Your task to perform on an android device: Show me popular games on the Play Store Image 0: 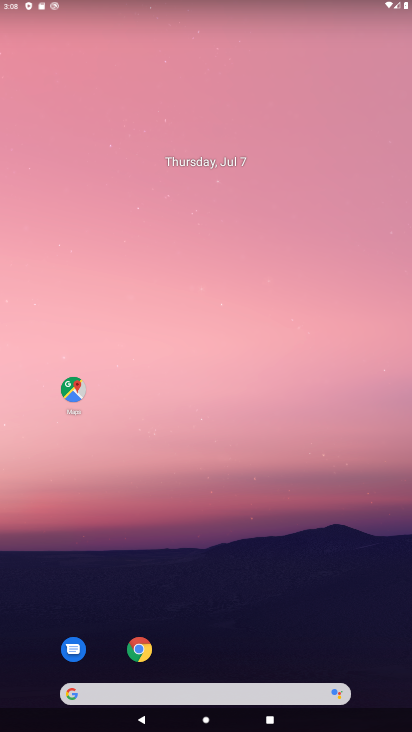
Step 0: drag from (224, 611) to (220, 87)
Your task to perform on an android device: Show me popular games on the Play Store Image 1: 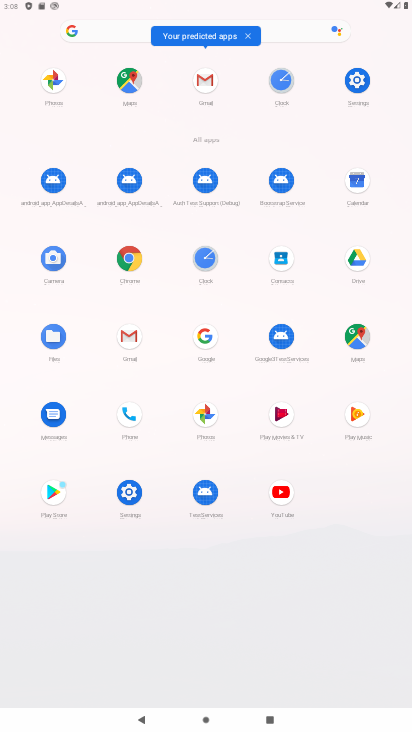
Step 1: click (43, 498)
Your task to perform on an android device: Show me popular games on the Play Store Image 2: 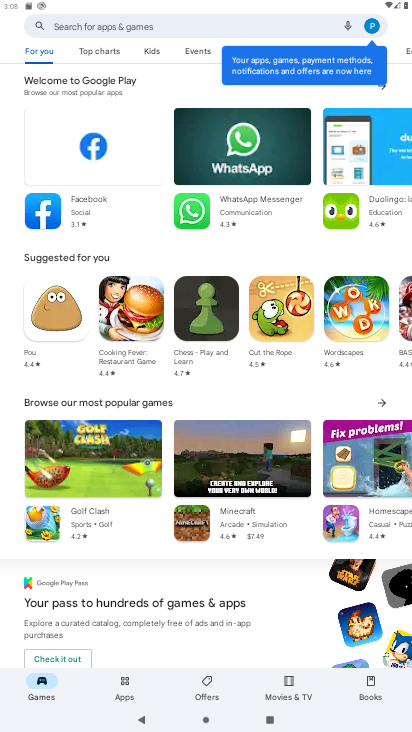
Step 2: drag from (153, 589) to (238, 96)
Your task to perform on an android device: Show me popular games on the Play Store Image 3: 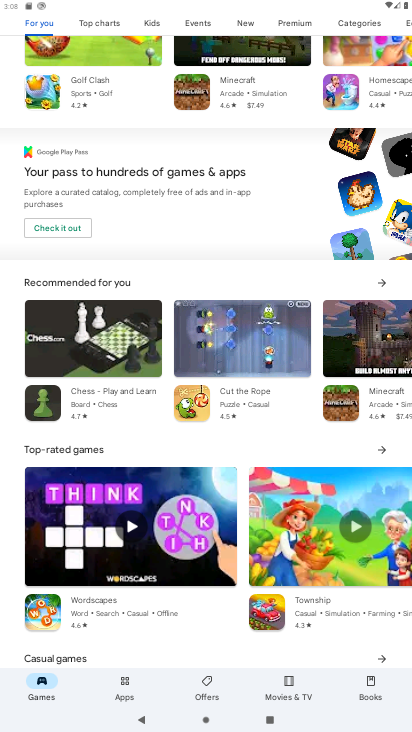
Step 3: drag from (179, 554) to (276, 66)
Your task to perform on an android device: Show me popular games on the Play Store Image 4: 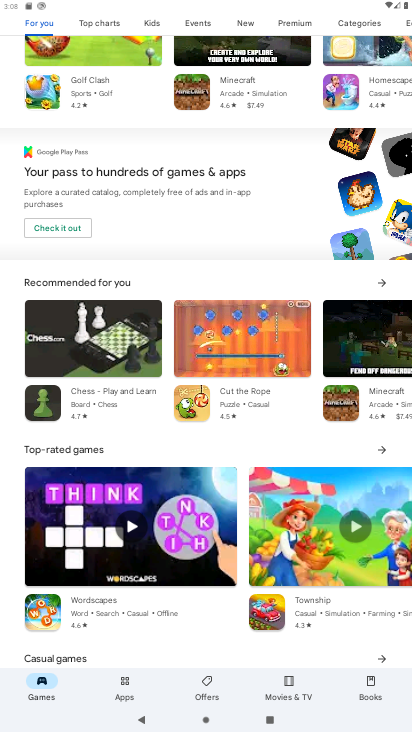
Step 4: drag from (162, 525) to (199, 141)
Your task to perform on an android device: Show me popular games on the Play Store Image 5: 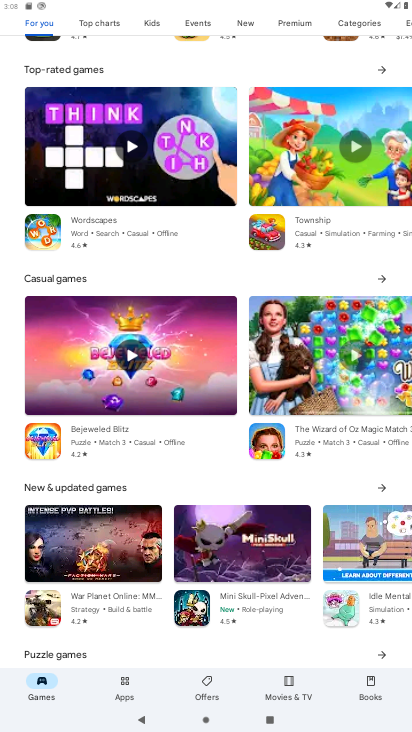
Step 5: drag from (126, 593) to (204, 168)
Your task to perform on an android device: Show me popular games on the Play Store Image 6: 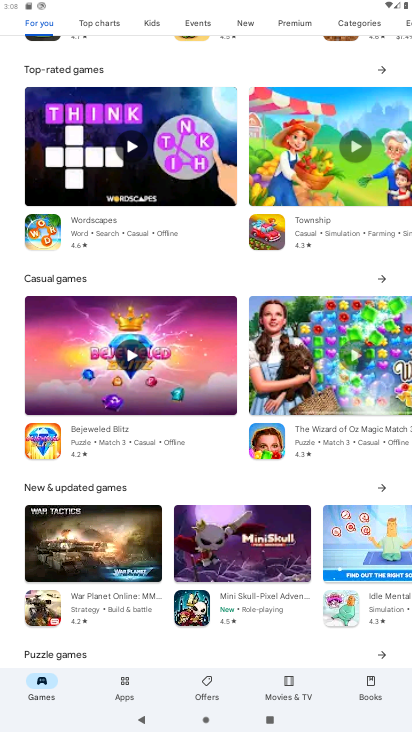
Step 6: drag from (146, 574) to (211, 158)
Your task to perform on an android device: Show me popular games on the Play Store Image 7: 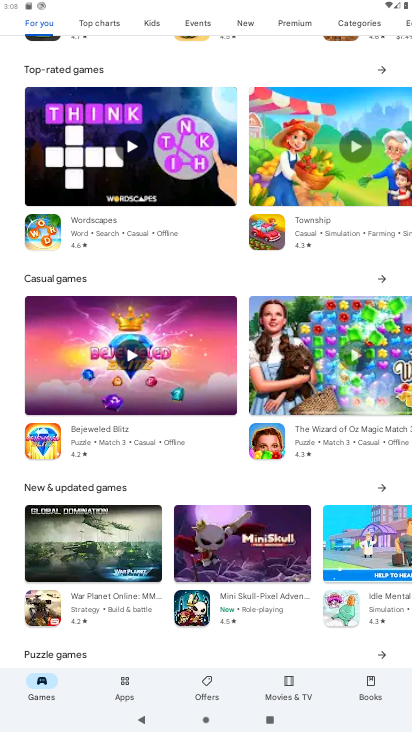
Step 7: drag from (228, 172) to (248, 109)
Your task to perform on an android device: Show me popular games on the Play Store Image 8: 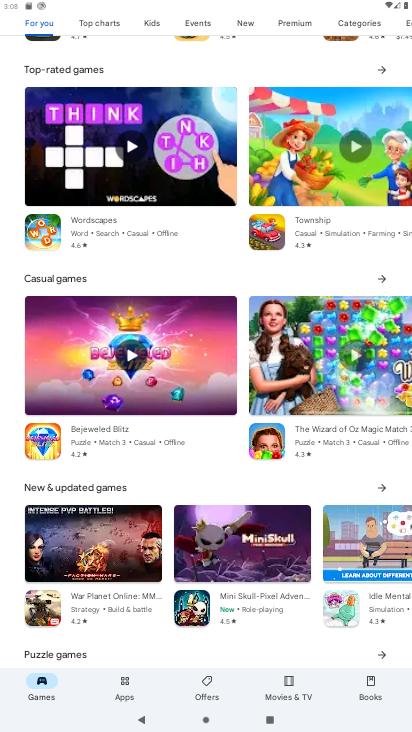
Step 8: drag from (152, 563) to (269, 16)
Your task to perform on an android device: Show me popular games on the Play Store Image 9: 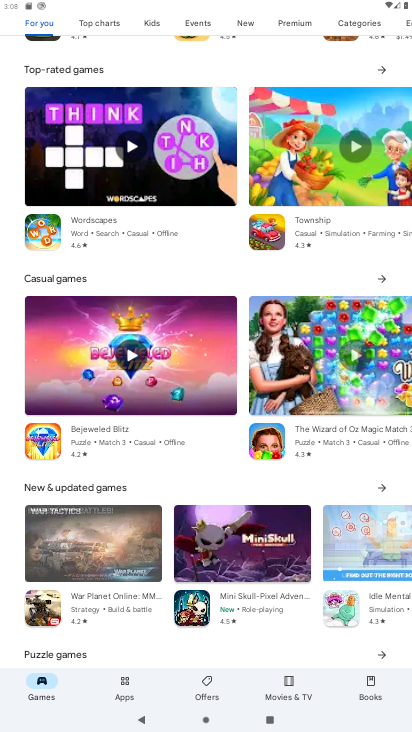
Step 9: click (124, 690)
Your task to perform on an android device: Show me popular games on the Play Store Image 10: 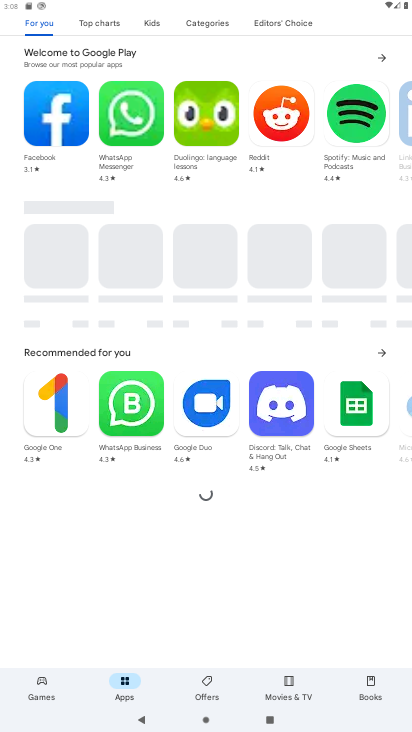
Step 10: click (36, 680)
Your task to perform on an android device: Show me popular games on the Play Store Image 11: 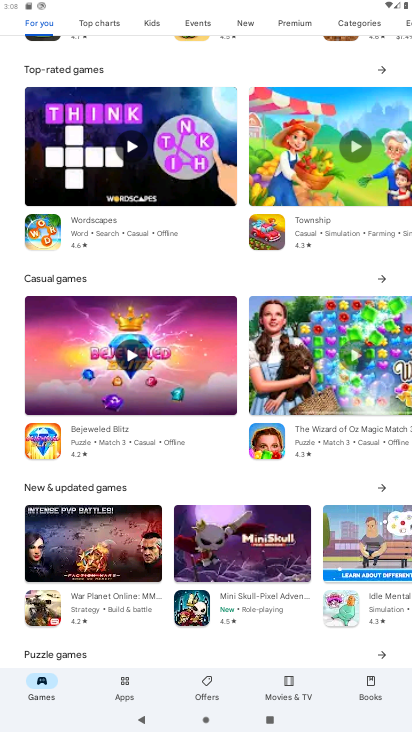
Step 11: drag from (179, 468) to (246, 53)
Your task to perform on an android device: Show me popular games on the Play Store Image 12: 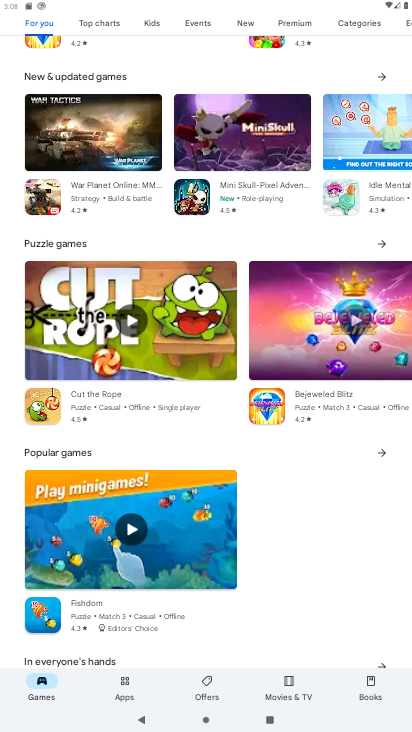
Step 12: click (378, 451)
Your task to perform on an android device: Show me popular games on the Play Store Image 13: 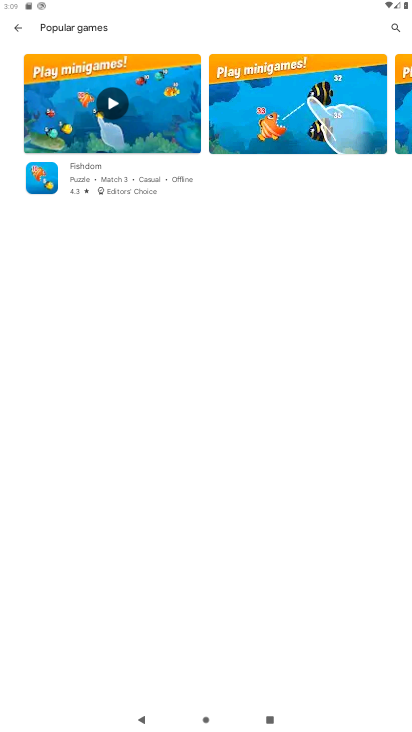
Step 13: task complete